Your task to perform on an android device: Search for vegetarian restaurants on Maps Image 0: 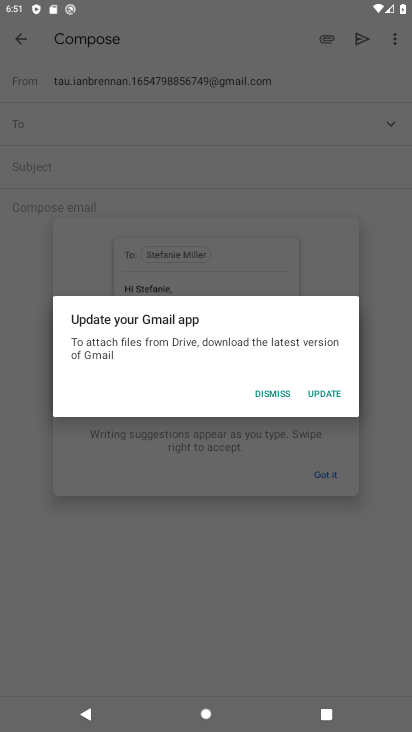
Step 0: press home button
Your task to perform on an android device: Search for vegetarian restaurants on Maps Image 1: 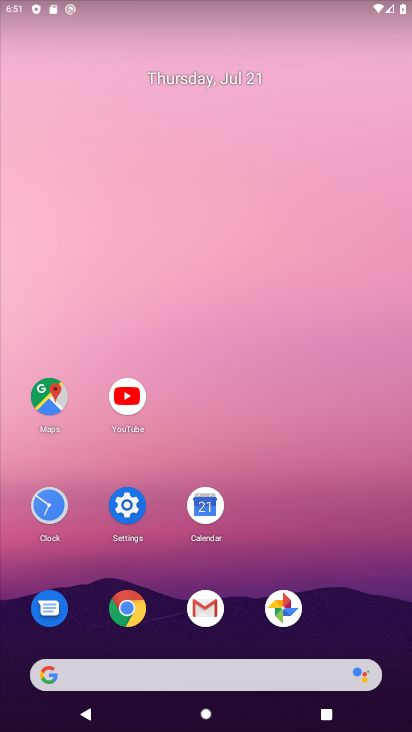
Step 1: click (40, 388)
Your task to perform on an android device: Search for vegetarian restaurants on Maps Image 2: 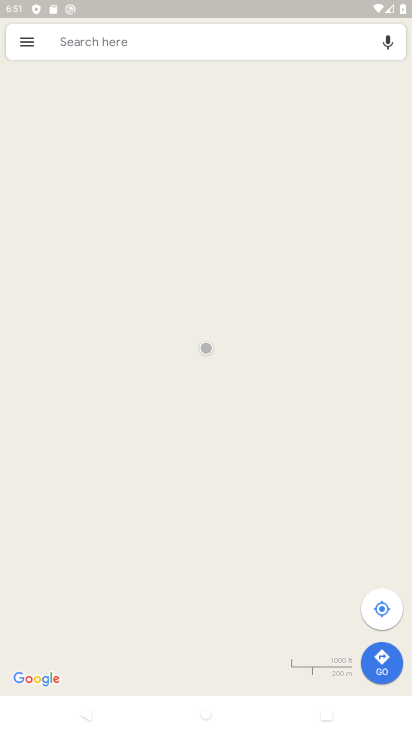
Step 2: click (110, 39)
Your task to perform on an android device: Search for vegetarian restaurants on Maps Image 3: 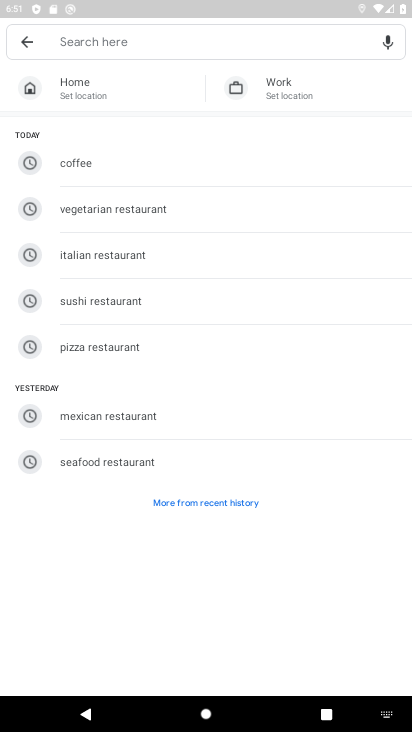
Step 3: click (128, 202)
Your task to perform on an android device: Search for vegetarian restaurants on Maps Image 4: 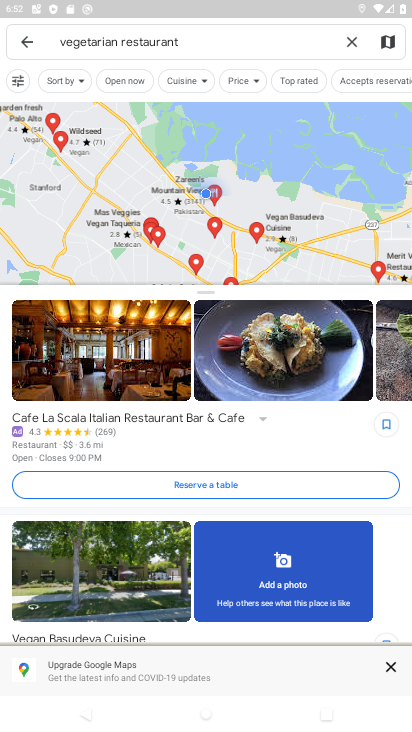
Step 4: task complete